Your task to perform on an android device: change notification settings in the gmail app Image 0: 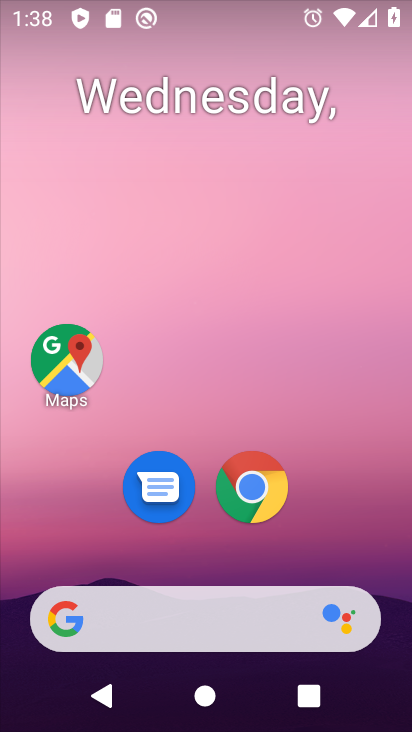
Step 0: drag from (389, 613) to (216, 66)
Your task to perform on an android device: change notification settings in the gmail app Image 1: 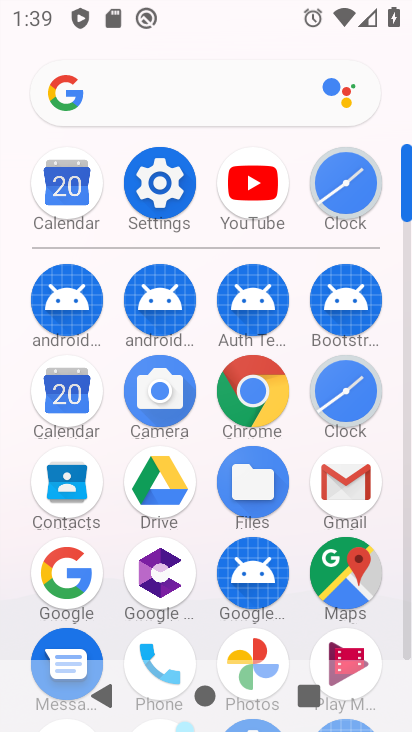
Step 1: click (354, 492)
Your task to perform on an android device: change notification settings in the gmail app Image 2: 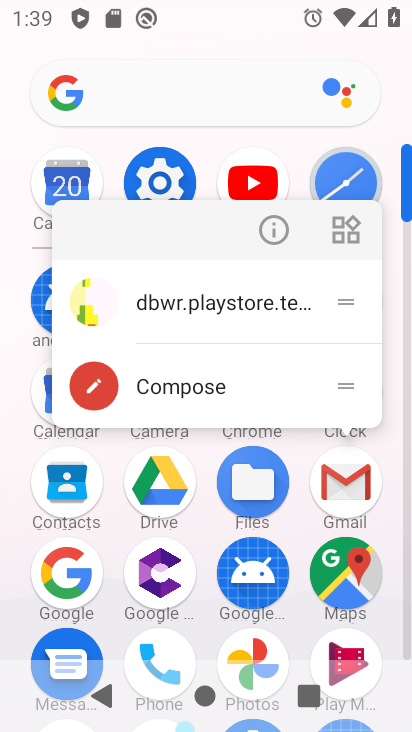
Step 2: click (350, 487)
Your task to perform on an android device: change notification settings in the gmail app Image 3: 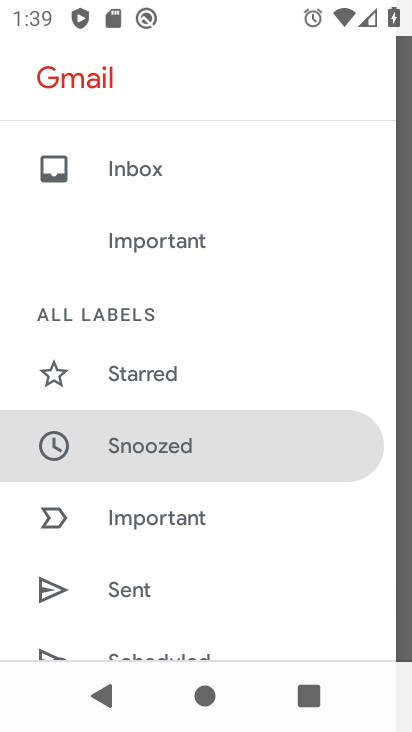
Step 3: drag from (192, 574) to (228, 171)
Your task to perform on an android device: change notification settings in the gmail app Image 4: 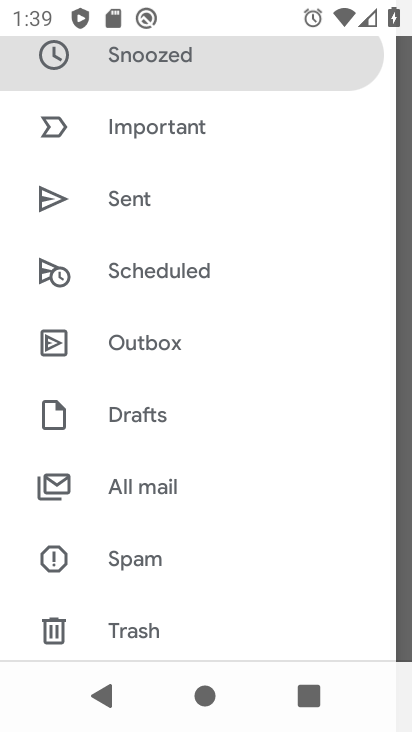
Step 4: drag from (179, 568) to (226, 245)
Your task to perform on an android device: change notification settings in the gmail app Image 5: 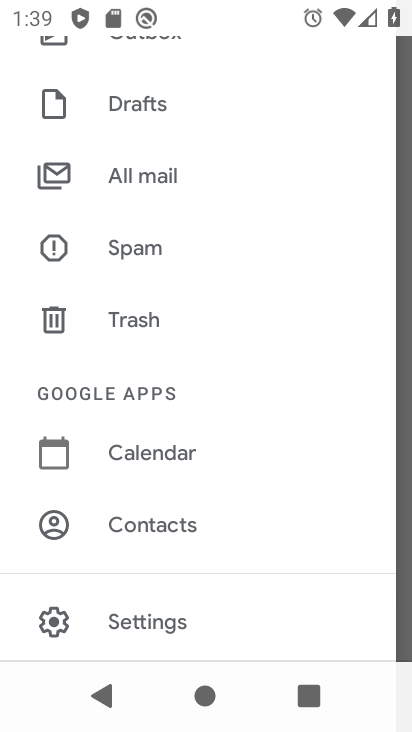
Step 5: click (190, 628)
Your task to perform on an android device: change notification settings in the gmail app Image 6: 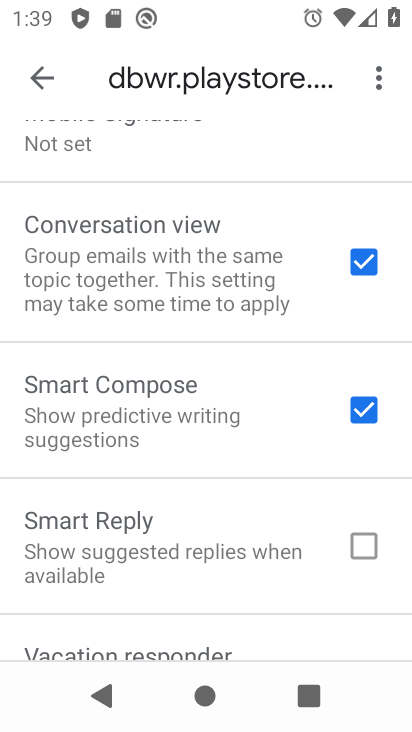
Step 6: drag from (219, 162) to (235, 539)
Your task to perform on an android device: change notification settings in the gmail app Image 7: 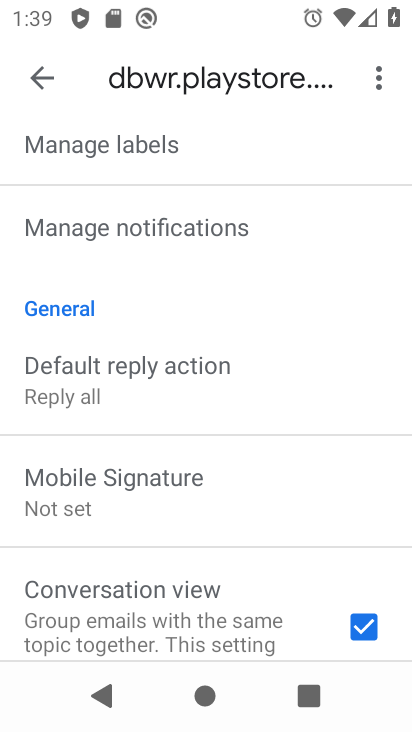
Step 7: drag from (179, 176) to (185, 553)
Your task to perform on an android device: change notification settings in the gmail app Image 8: 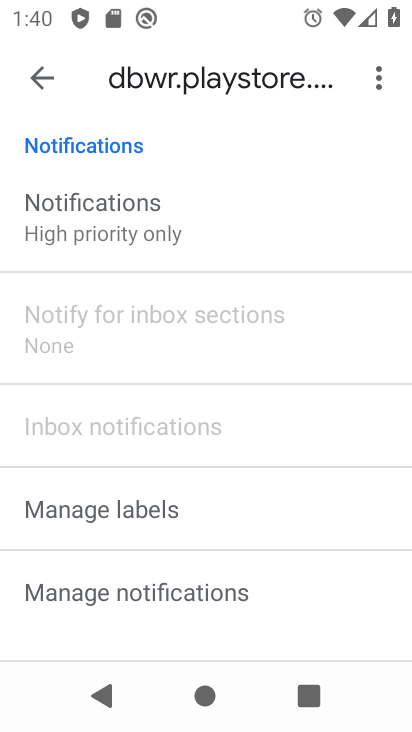
Step 8: drag from (182, 231) to (241, 616)
Your task to perform on an android device: change notification settings in the gmail app Image 9: 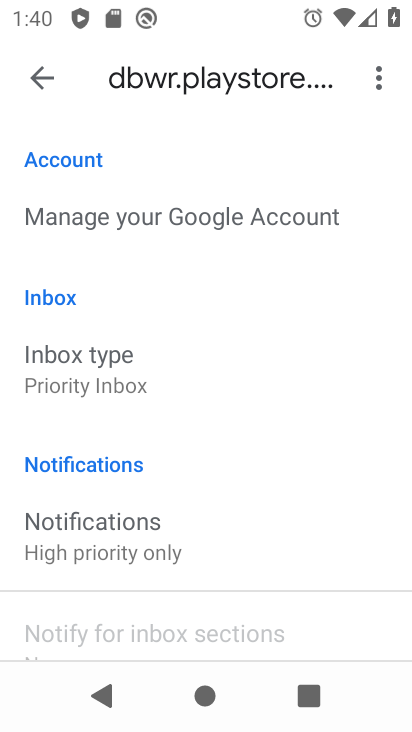
Step 9: click (220, 542)
Your task to perform on an android device: change notification settings in the gmail app Image 10: 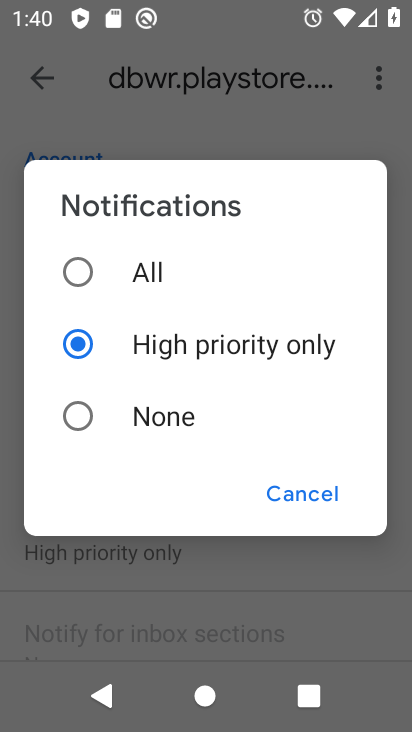
Step 10: click (118, 271)
Your task to perform on an android device: change notification settings in the gmail app Image 11: 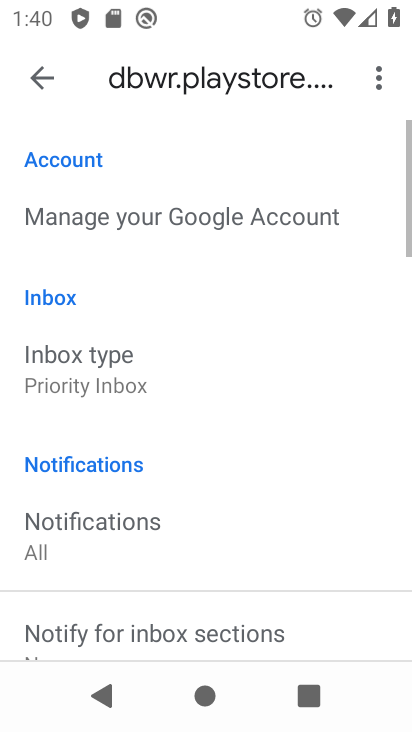
Step 11: task complete